Your task to perform on an android device: Open accessibility settings Image 0: 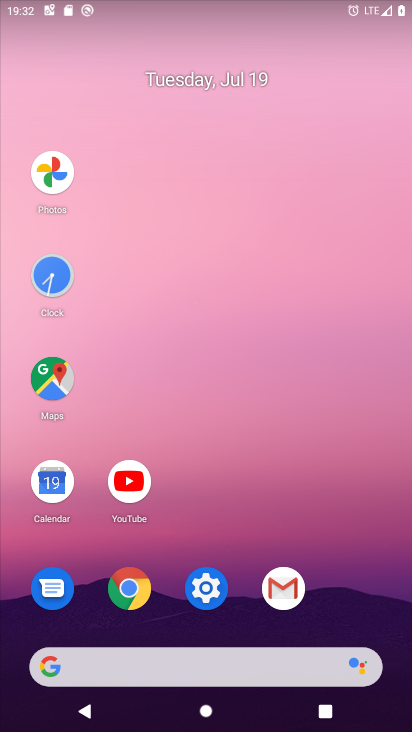
Step 0: click (204, 594)
Your task to perform on an android device: Open accessibility settings Image 1: 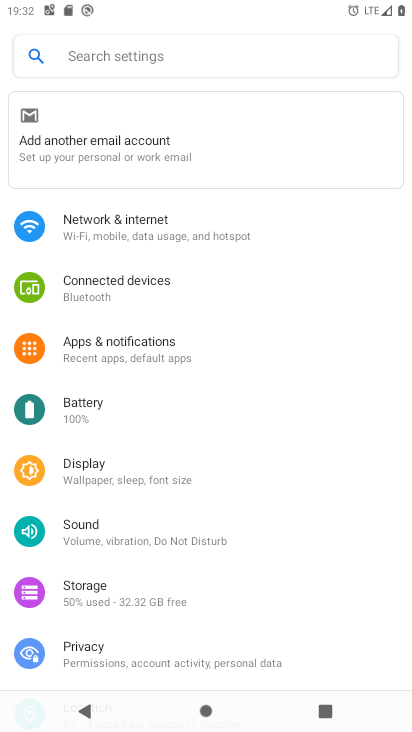
Step 1: drag from (278, 612) to (219, 275)
Your task to perform on an android device: Open accessibility settings Image 2: 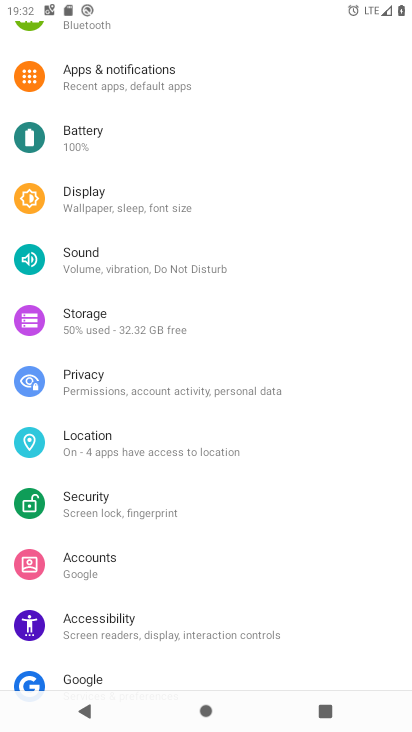
Step 2: click (100, 617)
Your task to perform on an android device: Open accessibility settings Image 3: 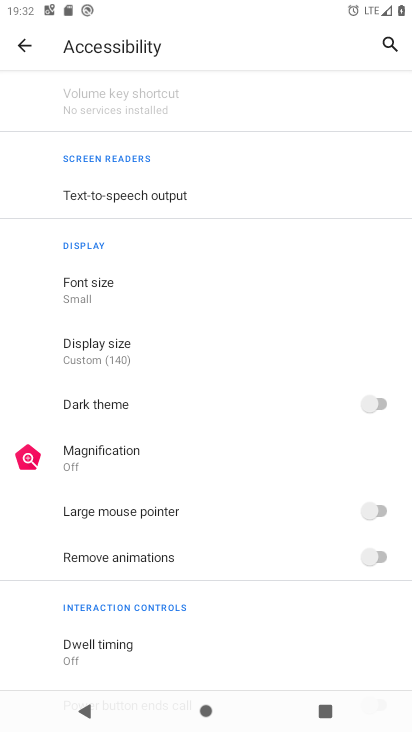
Step 3: task complete